Your task to perform on an android device: Find coffee shops on Maps Image 0: 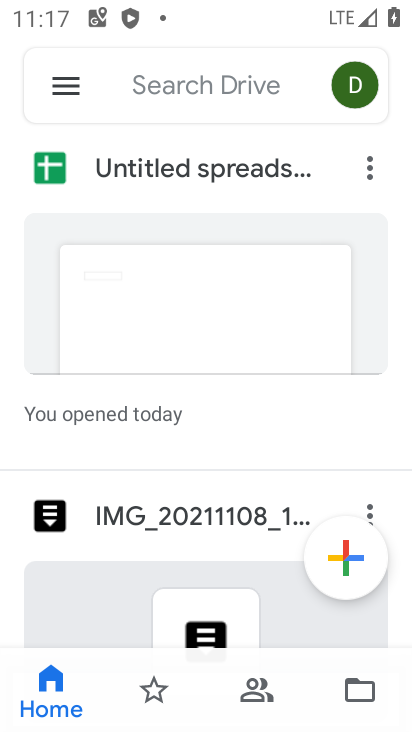
Step 0: press home button
Your task to perform on an android device: Find coffee shops on Maps Image 1: 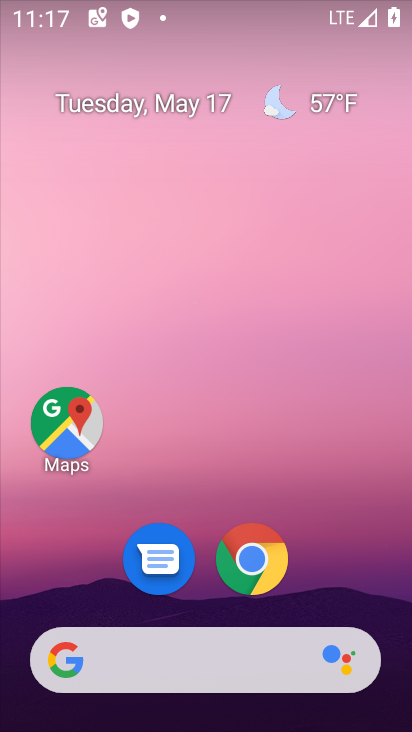
Step 1: click (63, 425)
Your task to perform on an android device: Find coffee shops on Maps Image 2: 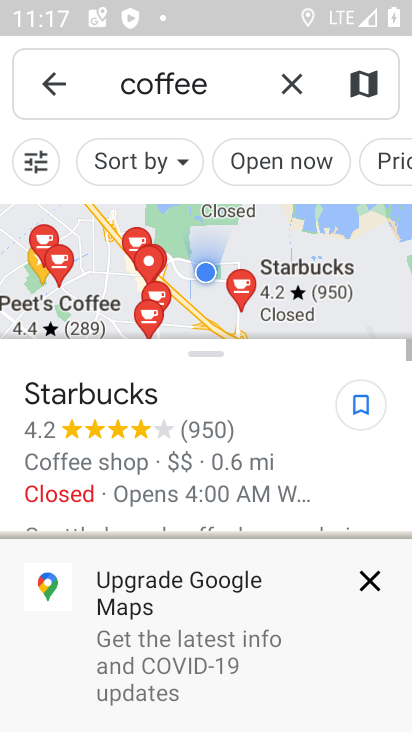
Step 2: drag from (228, 485) to (160, 142)
Your task to perform on an android device: Find coffee shops on Maps Image 3: 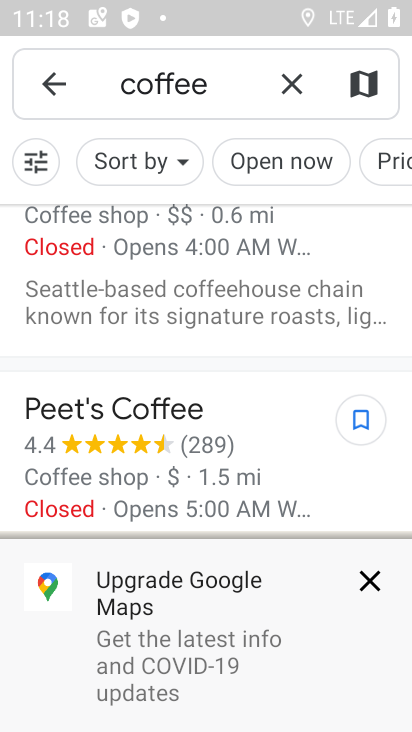
Step 3: click (375, 584)
Your task to perform on an android device: Find coffee shops on Maps Image 4: 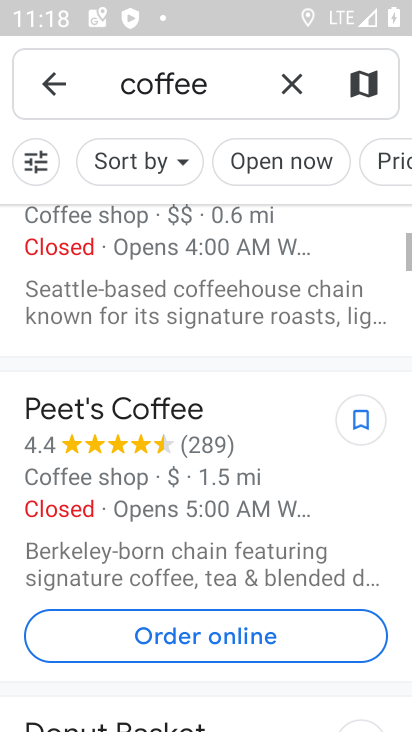
Step 4: task complete